Your task to perform on an android device: toggle location history Image 0: 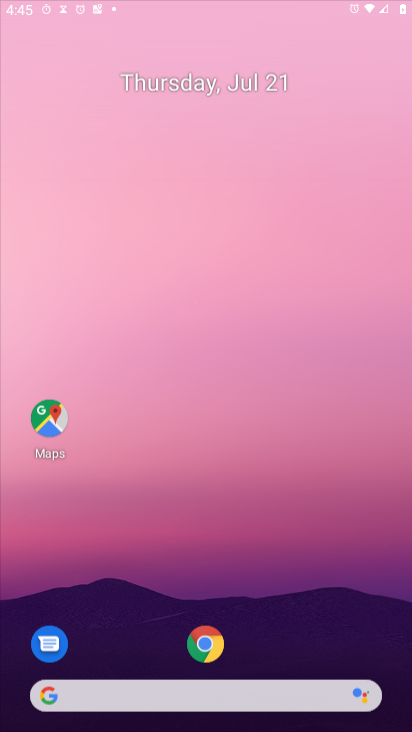
Step 0: press home button
Your task to perform on an android device: toggle location history Image 1: 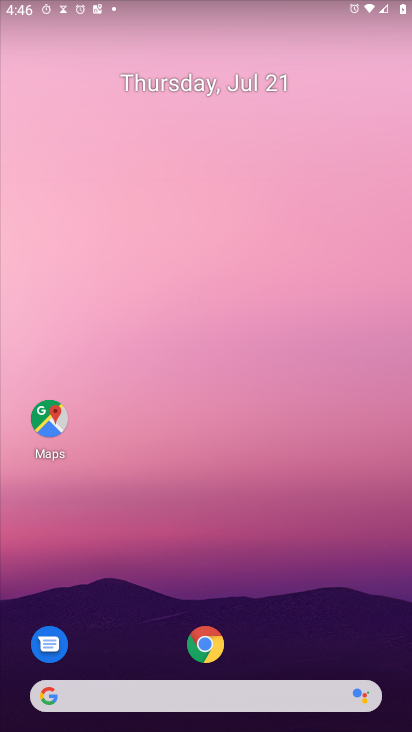
Step 1: drag from (302, 646) to (257, 75)
Your task to perform on an android device: toggle location history Image 2: 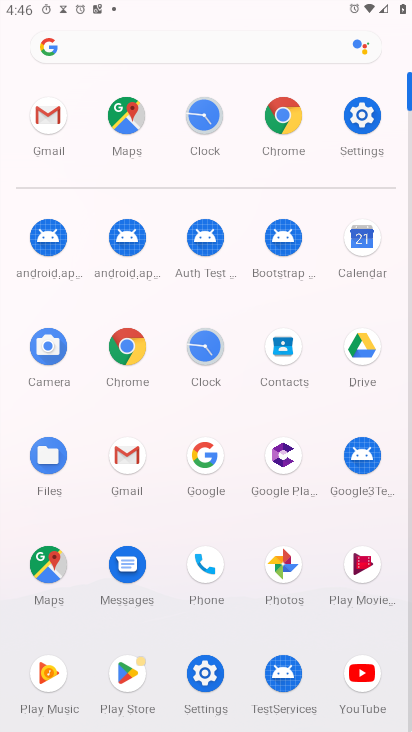
Step 2: click (356, 117)
Your task to perform on an android device: toggle location history Image 3: 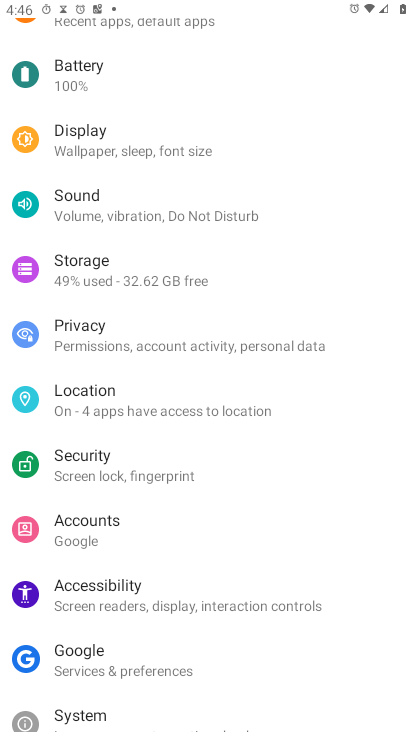
Step 3: click (79, 394)
Your task to perform on an android device: toggle location history Image 4: 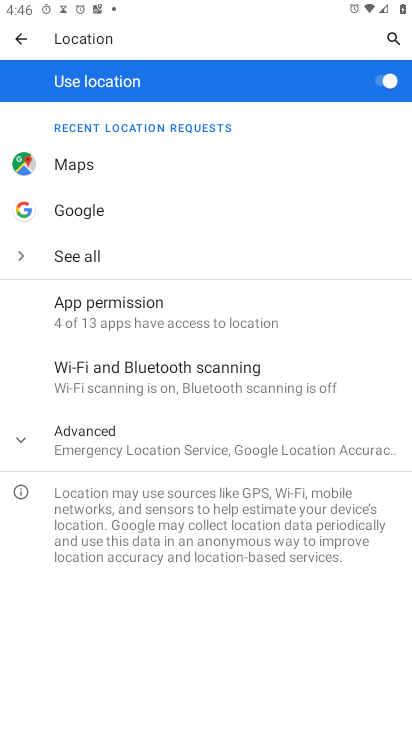
Step 4: click (82, 440)
Your task to perform on an android device: toggle location history Image 5: 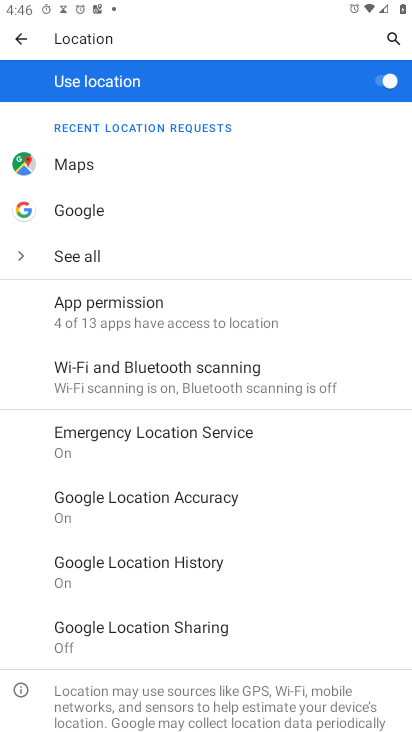
Step 5: click (156, 568)
Your task to perform on an android device: toggle location history Image 6: 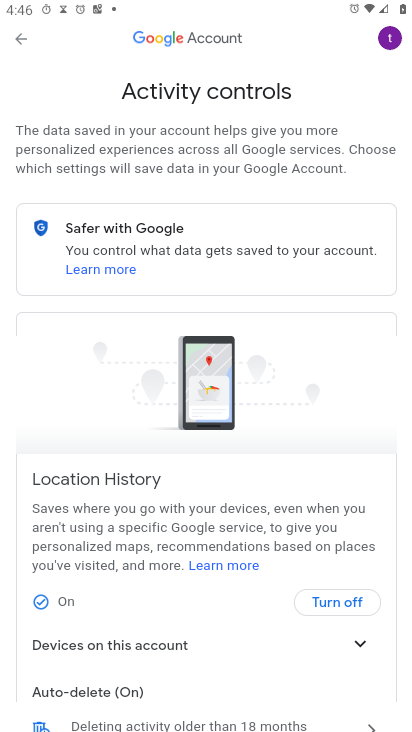
Step 6: click (341, 596)
Your task to perform on an android device: toggle location history Image 7: 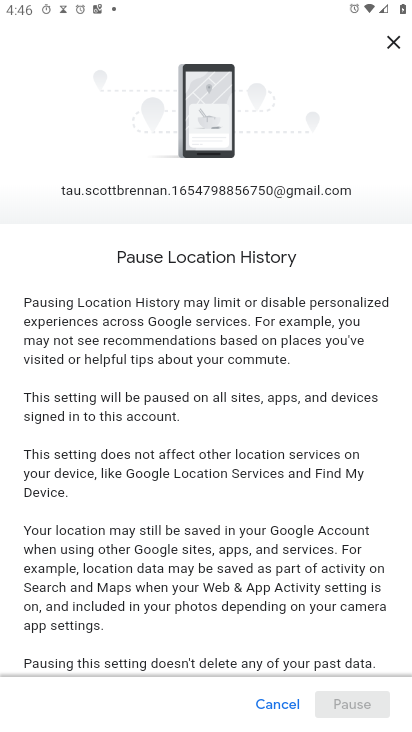
Step 7: drag from (375, 632) to (352, 226)
Your task to perform on an android device: toggle location history Image 8: 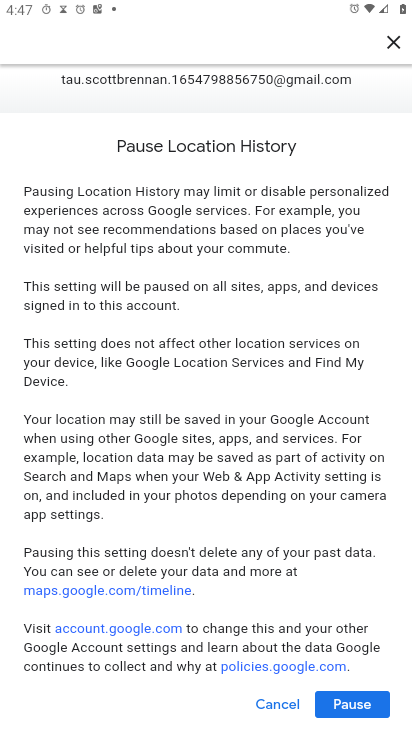
Step 8: click (352, 696)
Your task to perform on an android device: toggle location history Image 9: 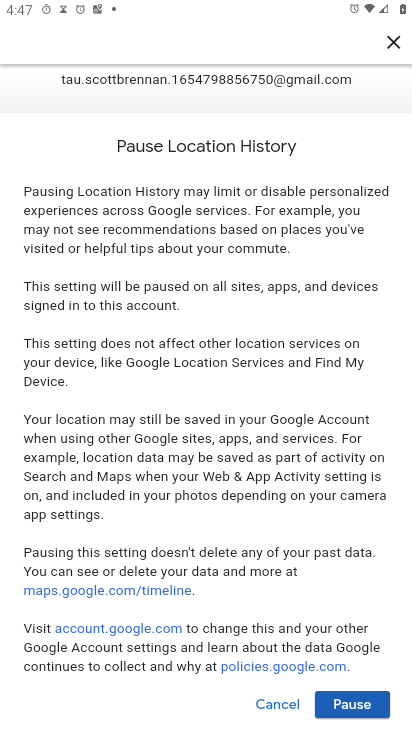
Step 9: click (345, 707)
Your task to perform on an android device: toggle location history Image 10: 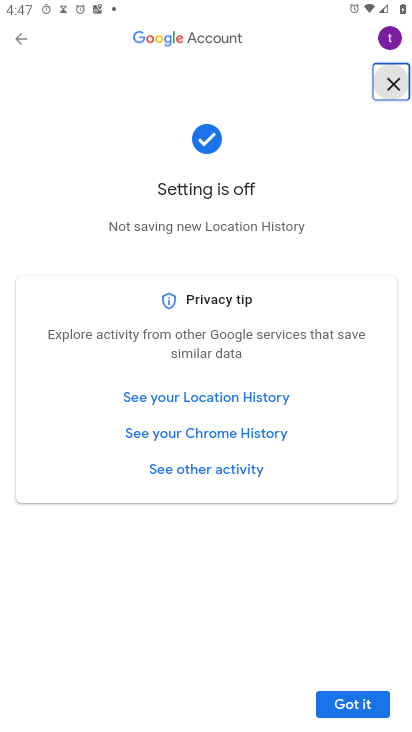
Step 10: click (345, 707)
Your task to perform on an android device: toggle location history Image 11: 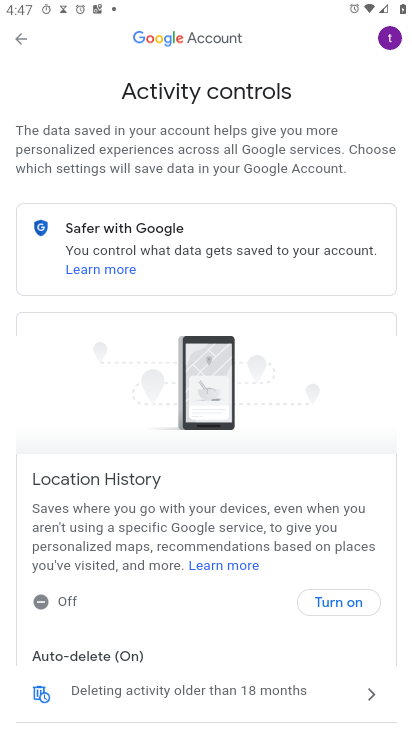
Step 11: task complete